Your task to perform on an android device: What's the weather going to be tomorrow? Image 0: 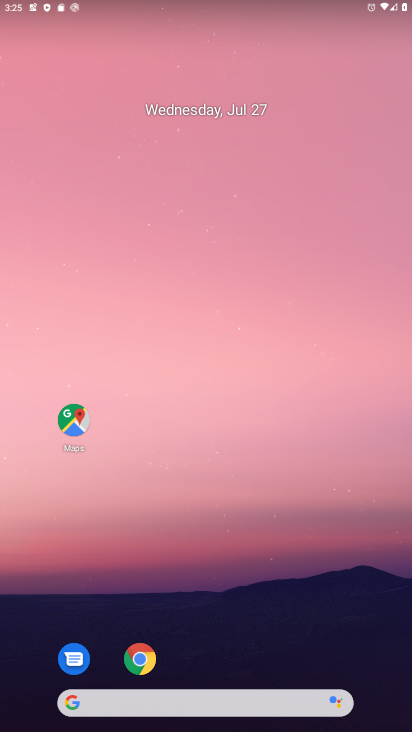
Step 0: click (149, 658)
Your task to perform on an android device: What's the weather going to be tomorrow? Image 1: 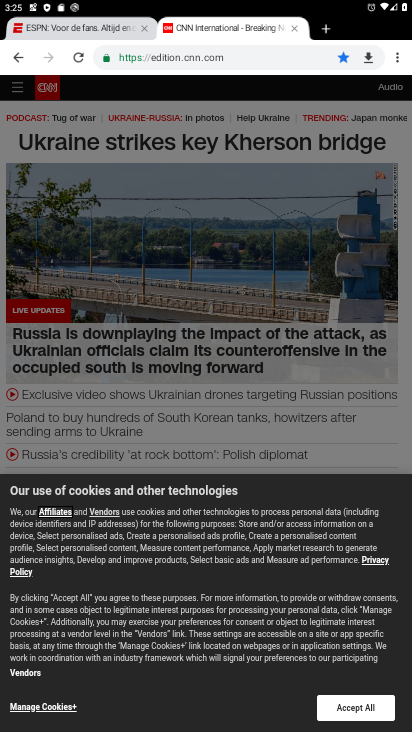
Step 1: click (245, 49)
Your task to perform on an android device: What's the weather going to be tomorrow? Image 2: 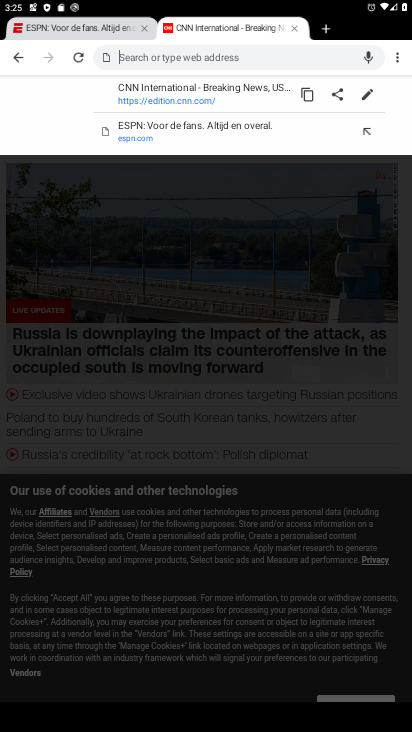
Step 2: type "What's the weather going to be tomorrow?"
Your task to perform on an android device: What's the weather going to be tomorrow? Image 3: 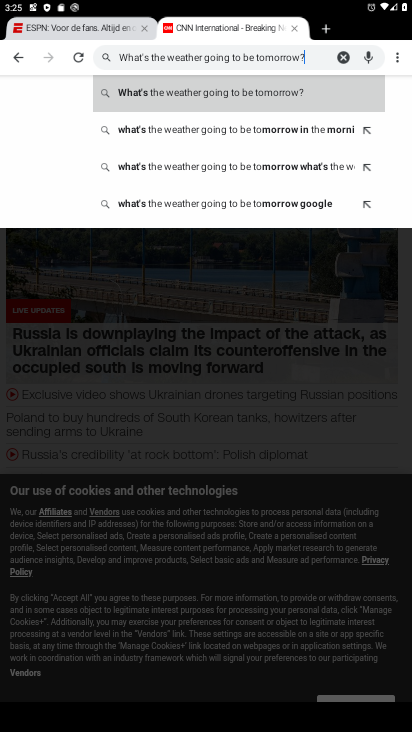
Step 3: click (286, 92)
Your task to perform on an android device: What's the weather going to be tomorrow? Image 4: 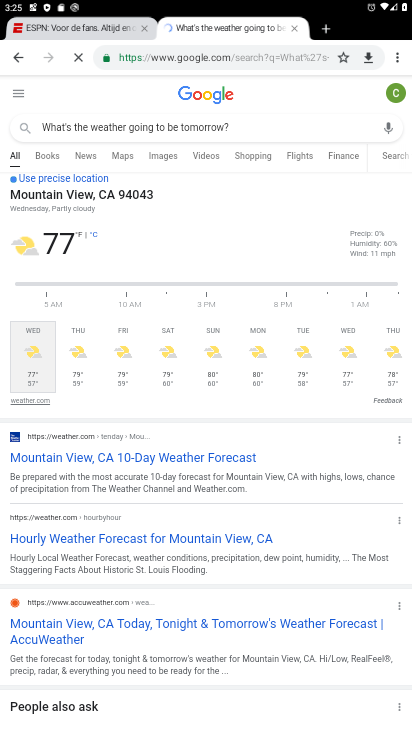
Step 4: task complete